Your task to perform on an android device: Open calendar and show me the first week of next month Image 0: 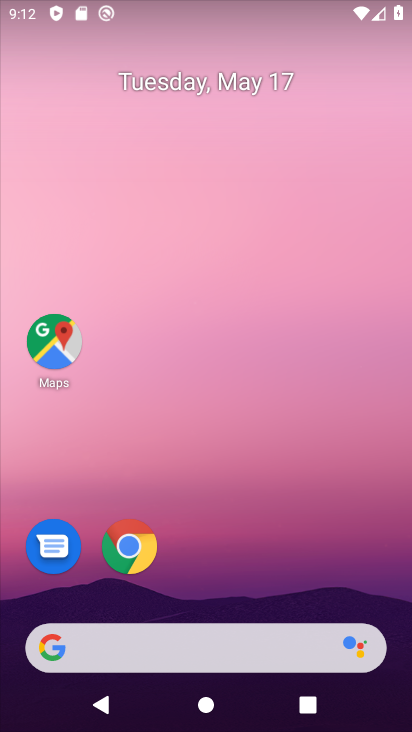
Step 0: drag from (310, 583) to (333, 2)
Your task to perform on an android device: Open calendar and show me the first week of next month Image 1: 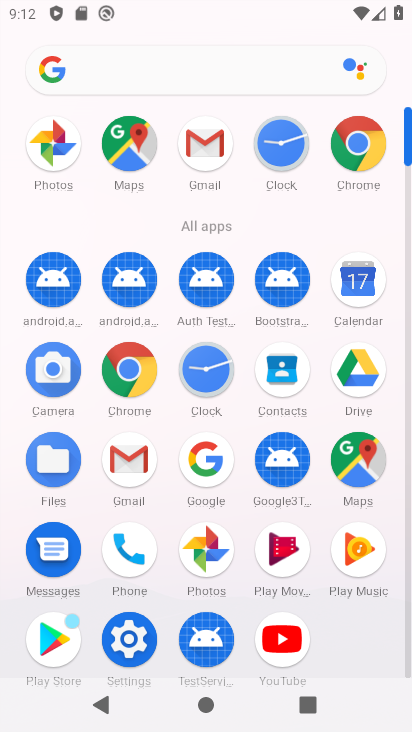
Step 1: click (352, 292)
Your task to perform on an android device: Open calendar and show me the first week of next month Image 2: 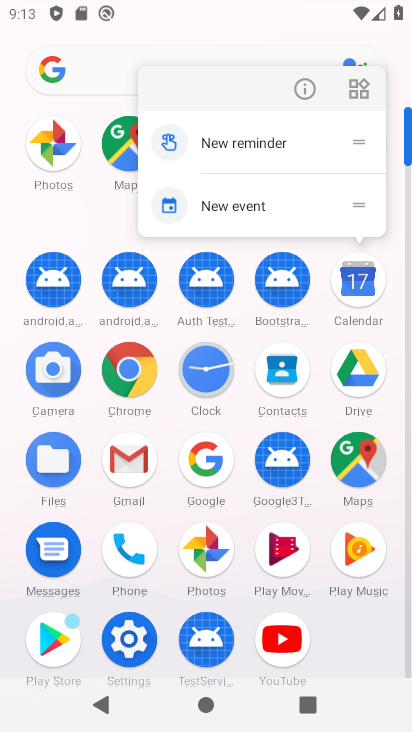
Step 2: click (348, 277)
Your task to perform on an android device: Open calendar and show me the first week of next month Image 3: 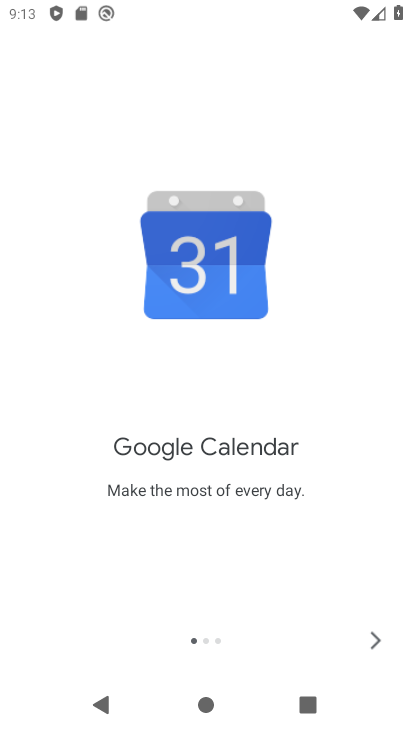
Step 3: click (370, 640)
Your task to perform on an android device: Open calendar and show me the first week of next month Image 4: 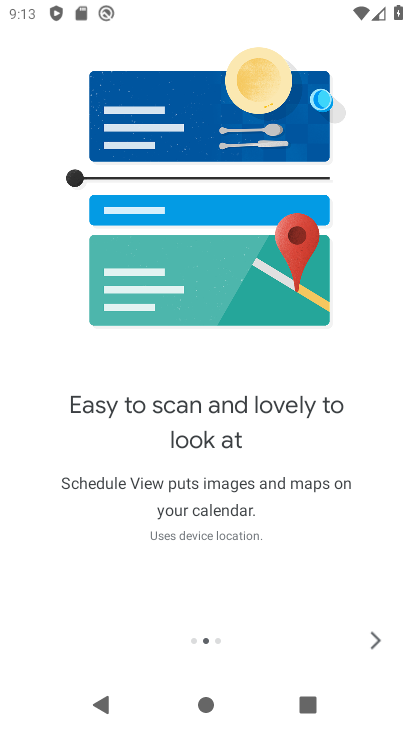
Step 4: click (370, 640)
Your task to perform on an android device: Open calendar and show me the first week of next month Image 5: 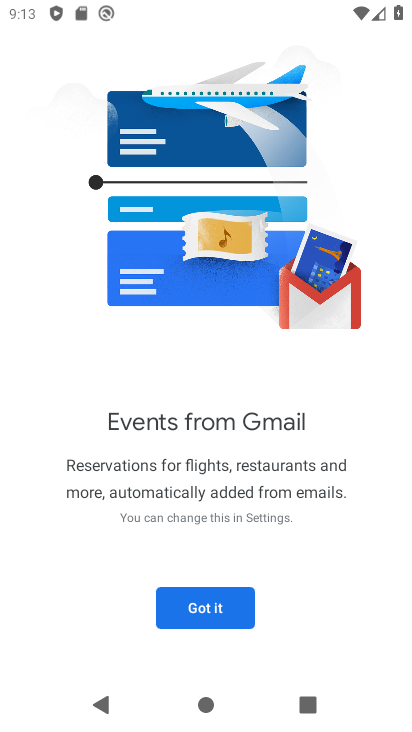
Step 5: click (211, 609)
Your task to perform on an android device: Open calendar and show me the first week of next month Image 6: 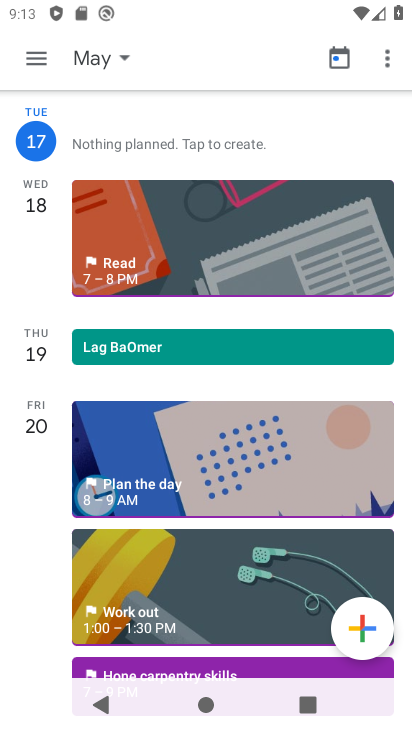
Step 6: click (124, 51)
Your task to perform on an android device: Open calendar and show me the first week of next month Image 7: 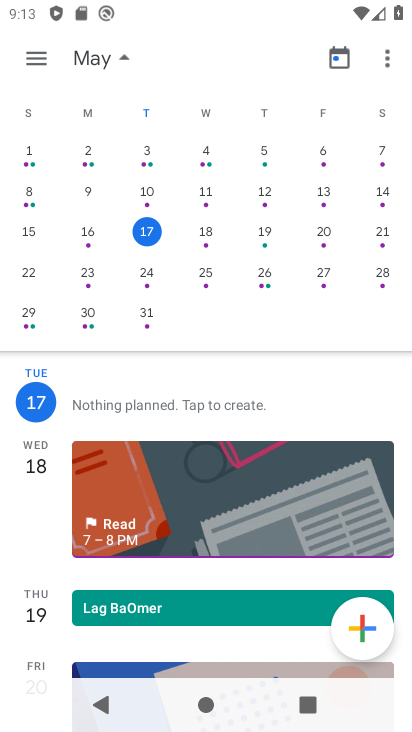
Step 7: click (103, 66)
Your task to perform on an android device: Open calendar and show me the first week of next month Image 8: 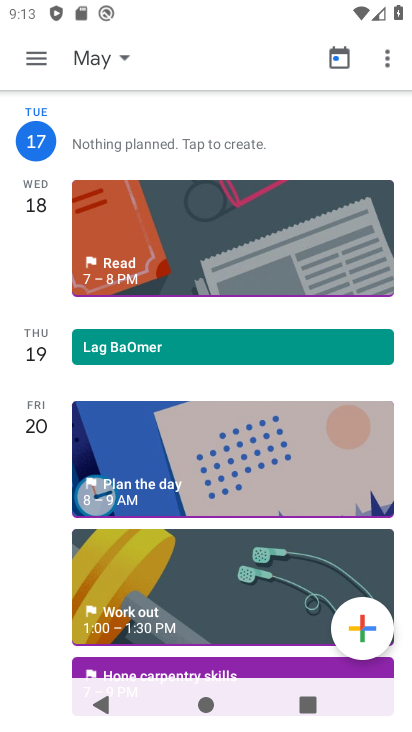
Step 8: click (123, 57)
Your task to perform on an android device: Open calendar and show me the first week of next month Image 9: 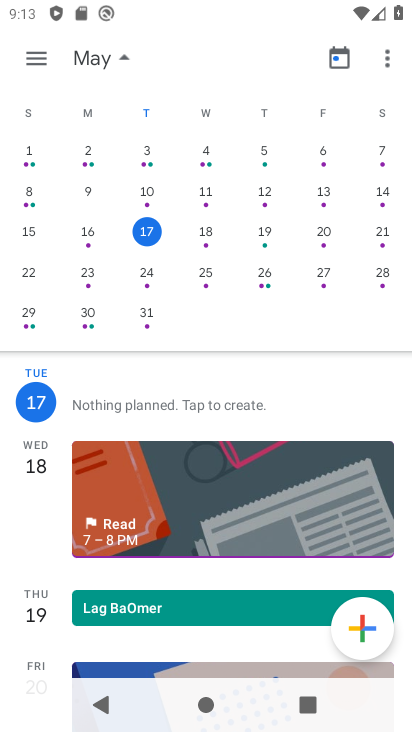
Step 9: task complete